Your task to perform on an android device: Open Google Maps and go to "Timeline" Image 0: 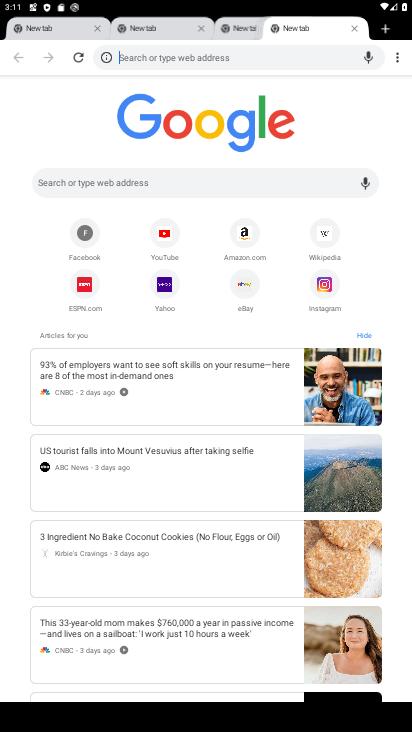
Step 0: press home button
Your task to perform on an android device: Open Google Maps and go to "Timeline" Image 1: 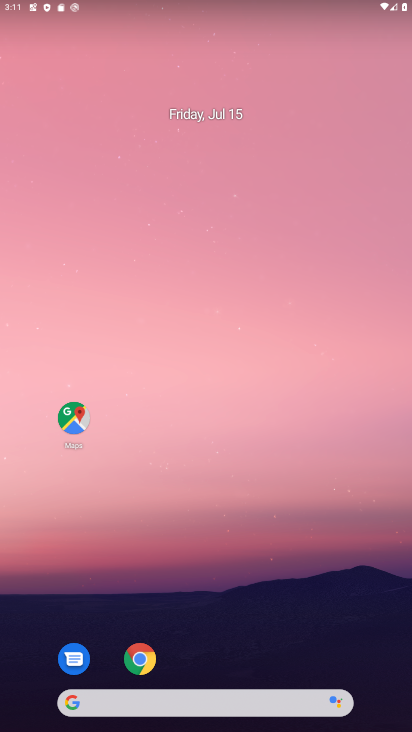
Step 1: drag from (129, 562) to (216, 278)
Your task to perform on an android device: Open Google Maps and go to "Timeline" Image 2: 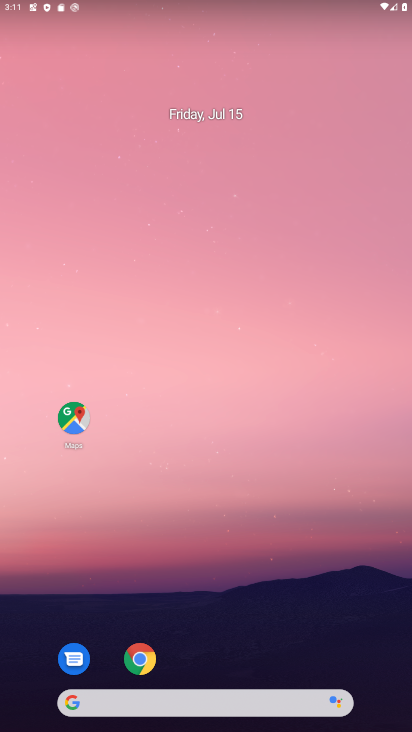
Step 2: drag from (46, 659) to (202, 194)
Your task to perform on an android device: Open Google Maps and go to "Timeline" Image 3: 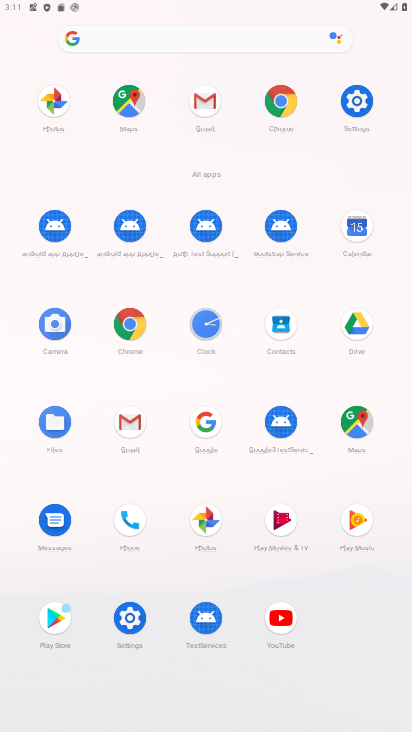
Step 3: click (371, 424)
Your task to perform on an android device: Open Google Maps and go to "Timeline" Image 4: 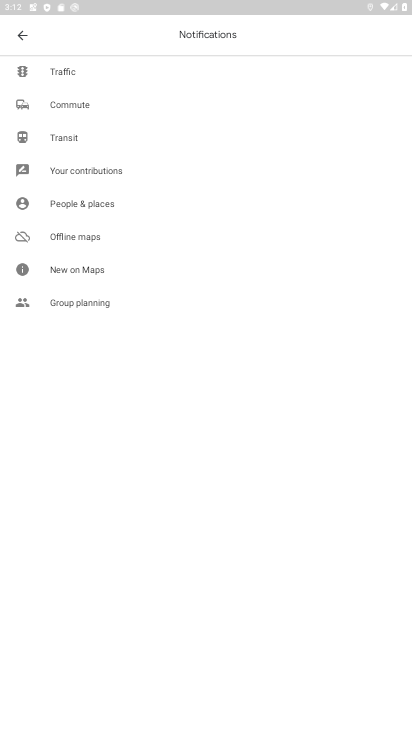
Step 4: click (20, 40)
Your task to perform on an android device: Open Google Maps and go to "Timeline" Image 5: 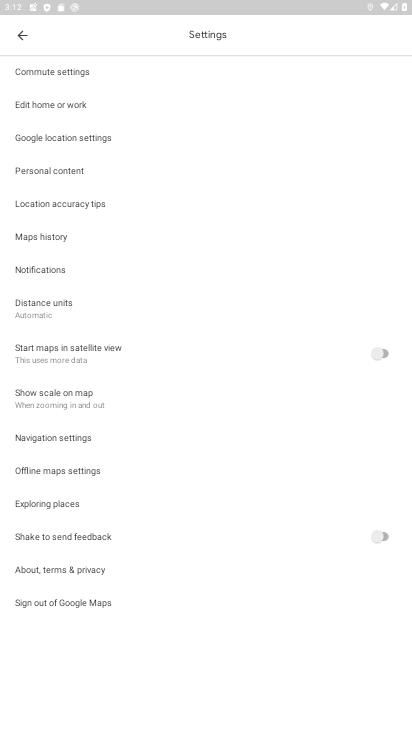
Step 5: click (18, 39)
Your task to perform on an android device: Open Google Maps and go to "Timeline" Image 6: 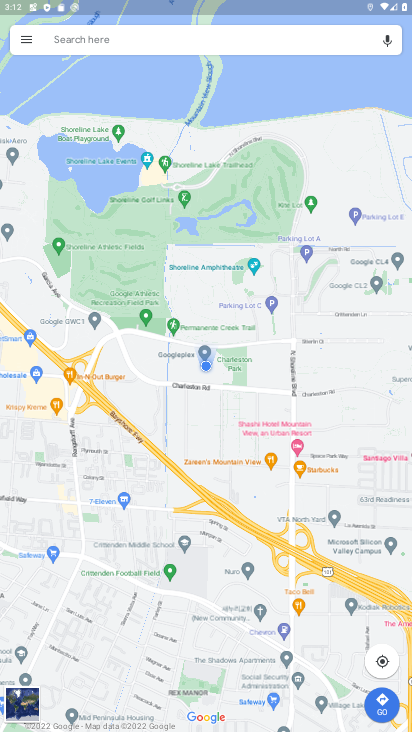
Step 6: click (19, 41)
Your task to perform on an android device: Open Google Maps and go to "Timeline" Image 7: 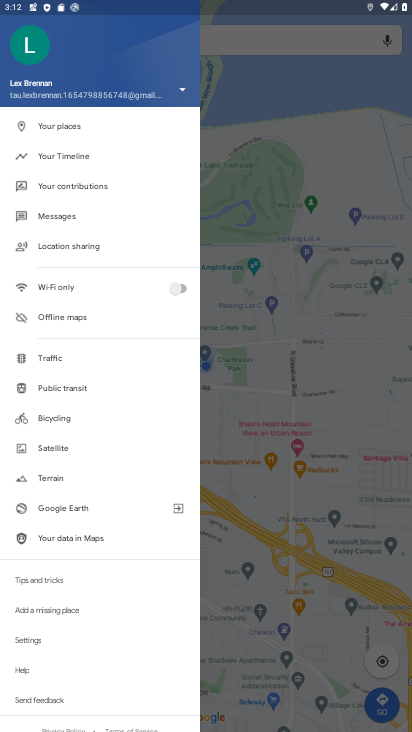
Step 7: click (65, 159)
Your task to perform on an android device: Open Google Maps and go to "Timeline" Image 8: 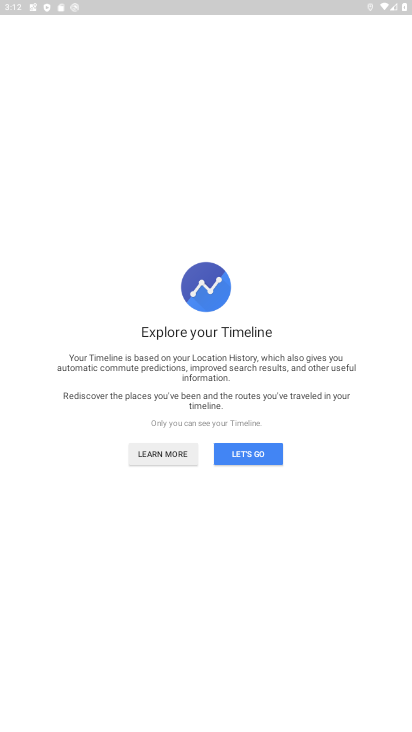
Step 8: click (222, 455)
Your task to perform on an android device: Open Google Maps and go to "Timeline" Image 9: 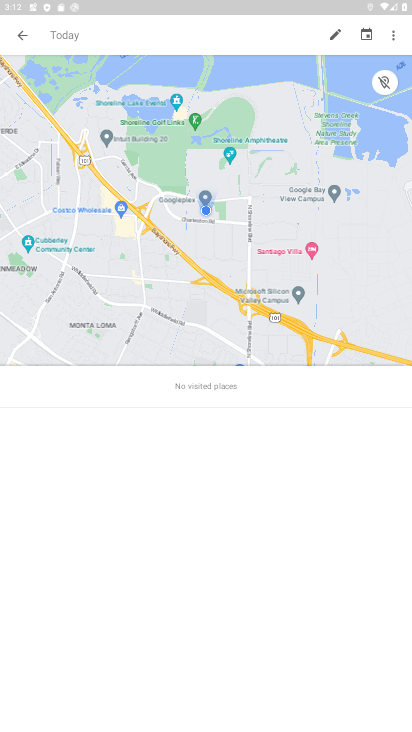
Step 9: task complete